Your task to perform on an android device: create a new album in the google photos Image 0: 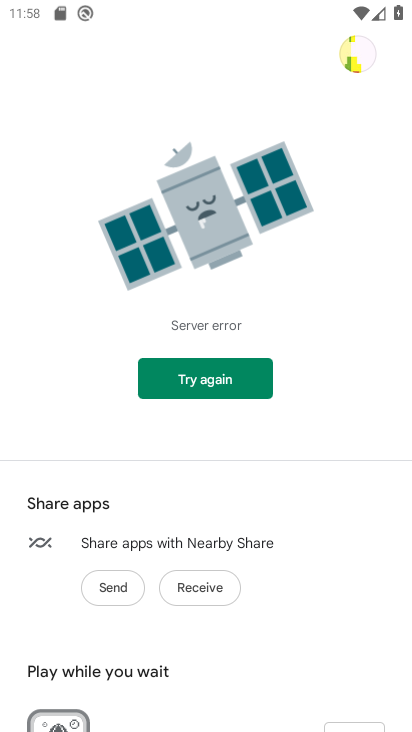
Step 0: press home button
Your task to perform on an android device: create a new album in the google photos Image 1: 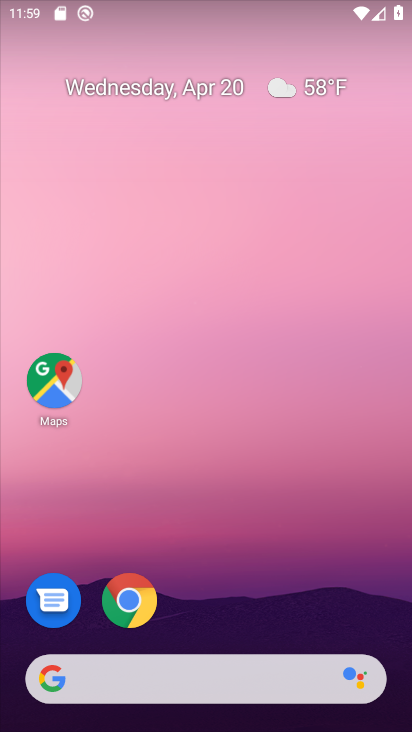
Step 1: drag from (248, 613) to (248, 123)
Your task to perform on an android device: create a new album in the google photos Image 2: 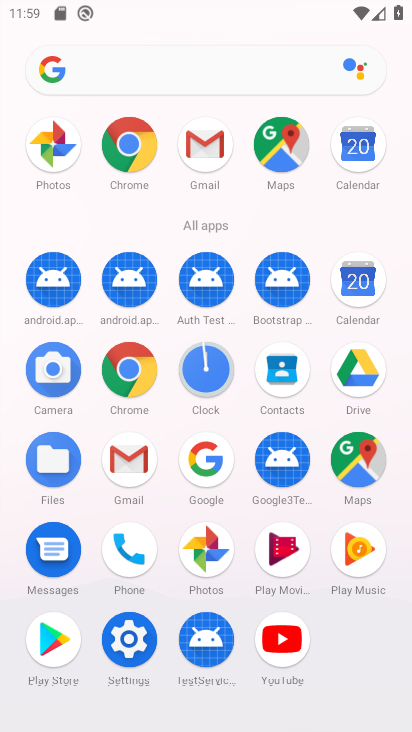
Step 2: click (58, 138)
Your task to perform on an android device: create a new album in the google photos Image 3: 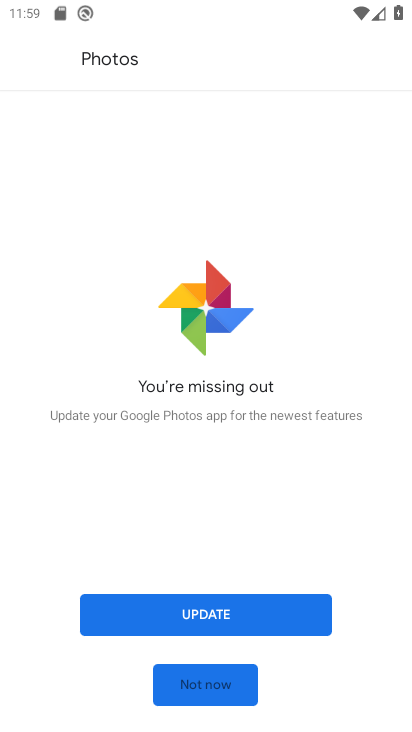
Step 3: click (214, 674)
Your task to perform on an android device: create a new album in the google photos Image 4: 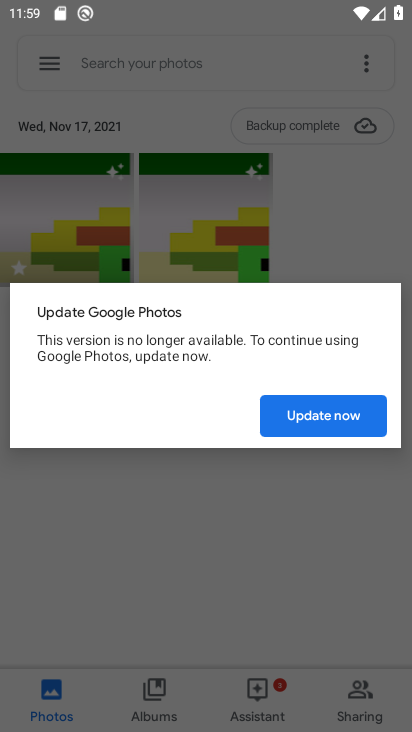
Step 4: click (341, 412)
Your task to perform on an android device: create a new album in the google photos Image 5: 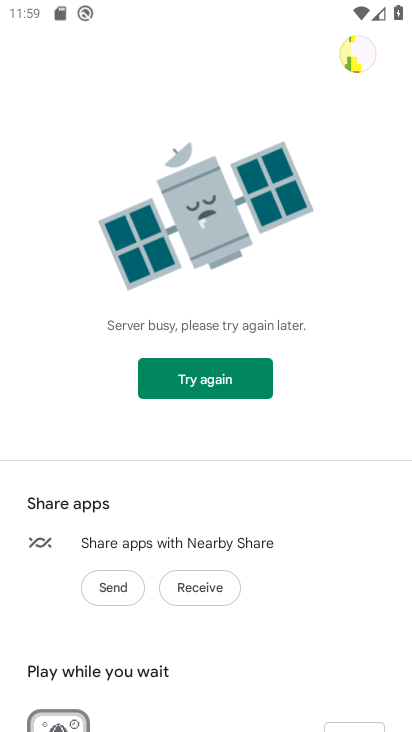
Step 5: press back button
Your task to perform on an android device: create a new album in the google photos Image 6: 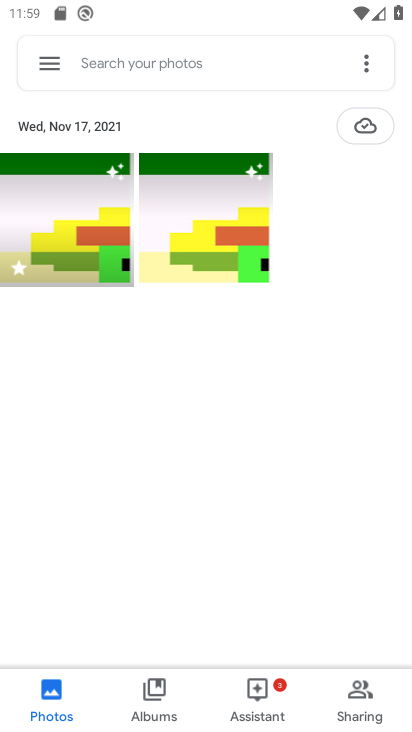
Step 6: click (150, 690)
Your task to perform on an android device: create a new album in the google photos Image 7: 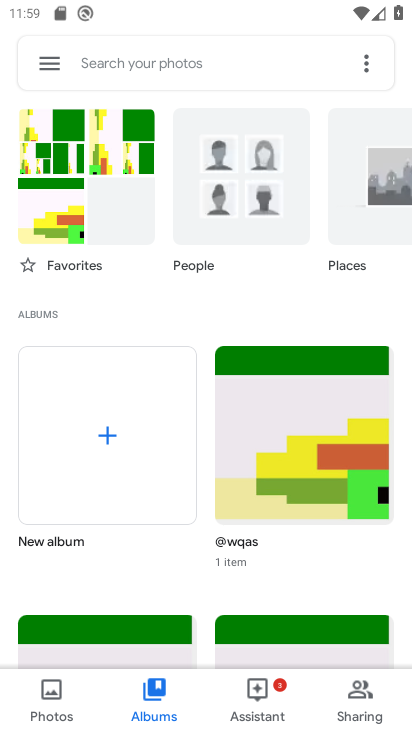
Step 7: click (106, 424)
Your task to perform on an android device: create a new album in the google photos Image 8: 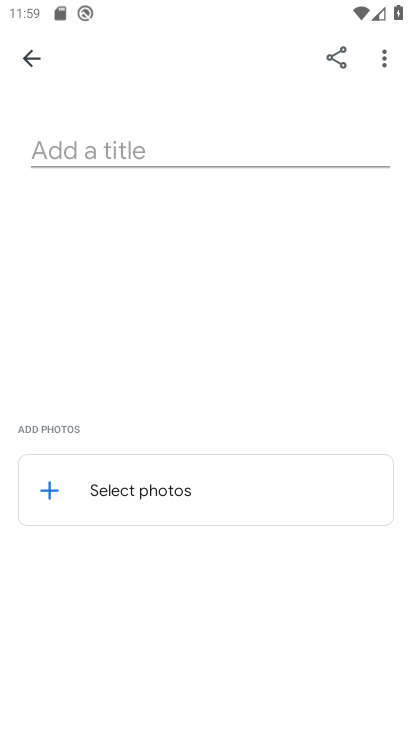
Step 8: click (180, 146)
Your task to perform on an android device: create a new album in the google photos Image 9: 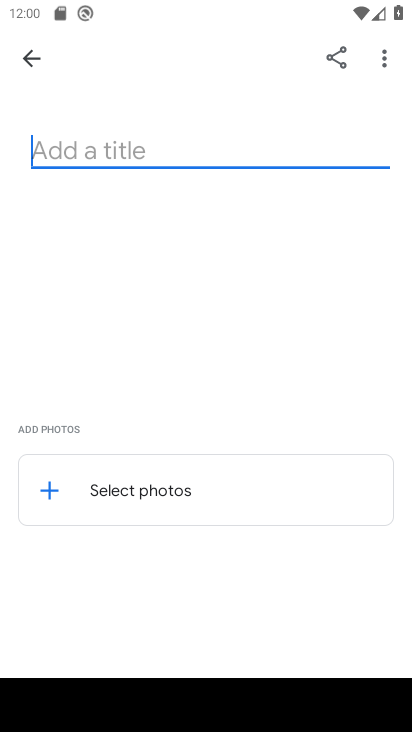
Step 9: type "Bhartiya Janpad Tibbet"
Your task to perform on an android device: create a new album in the google photos Image 10: 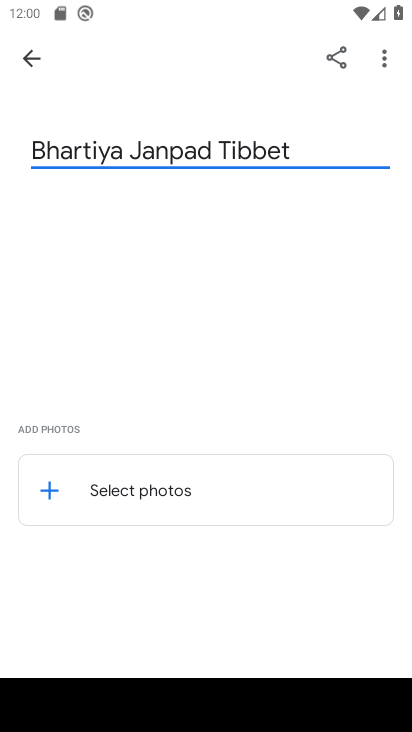
Step 10: click (50, 483)
Your task to perform on an android device: create a new album in the google photos Image 11: 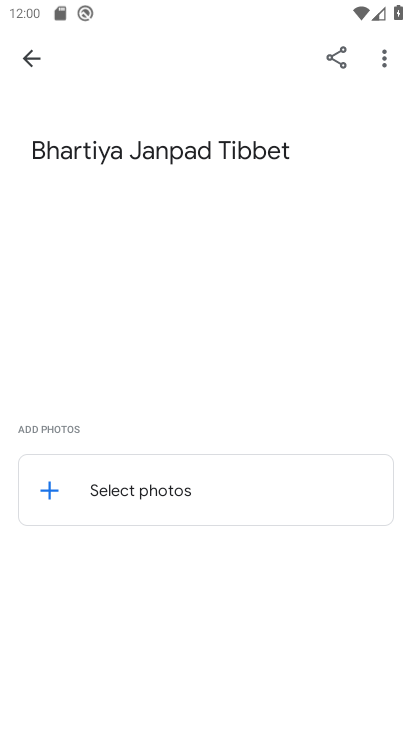
Step 11: click (127, 479)
Your task to perform on an android device: create a new album in the google photos Image 12: 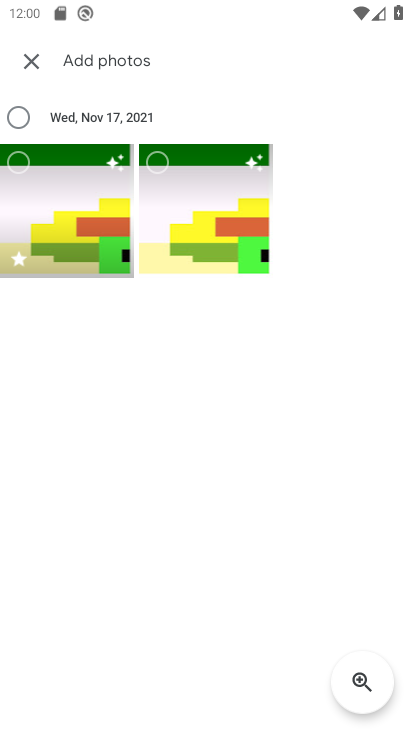
Step 12: click (154, 159)
Your task to perform on an android device: create a new album in the google photos Image 13: 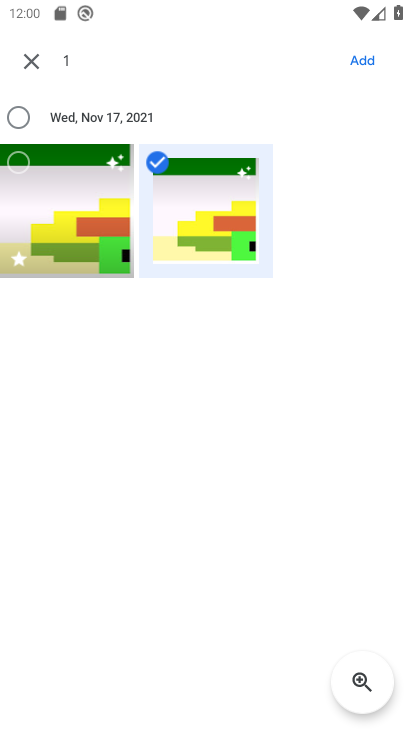
Step 13: click (365, 53)
Your task to perform on an android device: create a new album in the google photos Image 14: 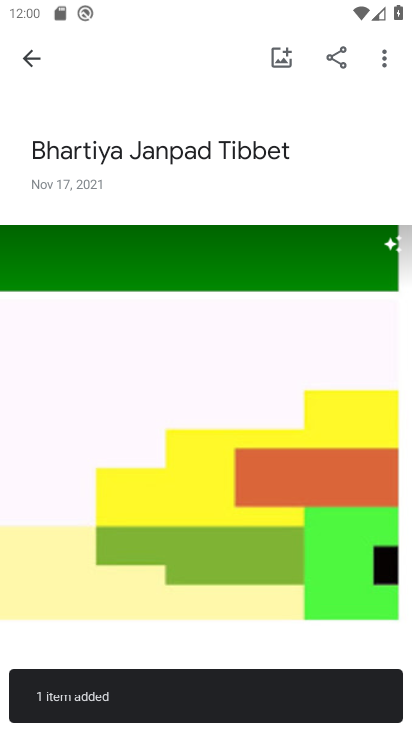
Step 14: task complete